Your task to perform on an android device: Open the calendar app, open the side menu, and click the "Day" option Image 0: 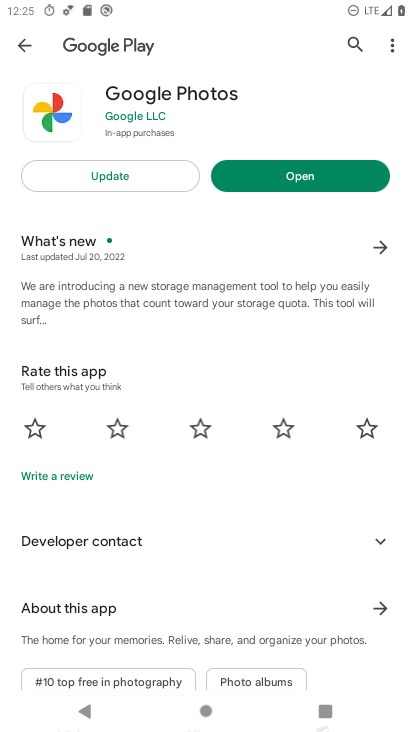
Step 0: press home button
Your task to perform on an android device: Open the calendar app, open the side menu, and click the "Day" option Image 1: 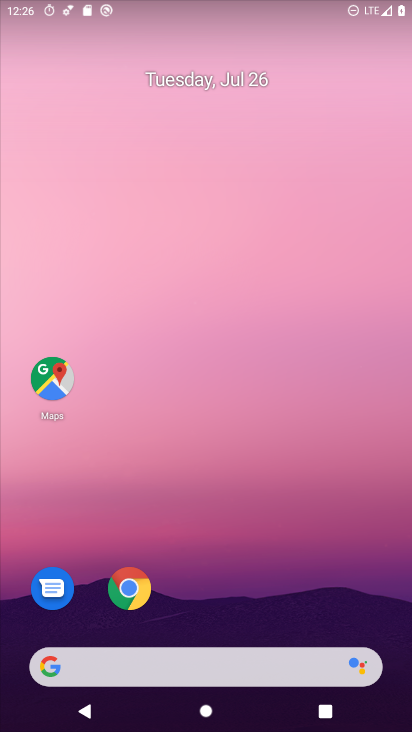
Step 1: drag from (241, 474) to (198, 80)
Your task to perform on an android device: Open the calendar app, open the side menu, and click the "Day" option Image 2: 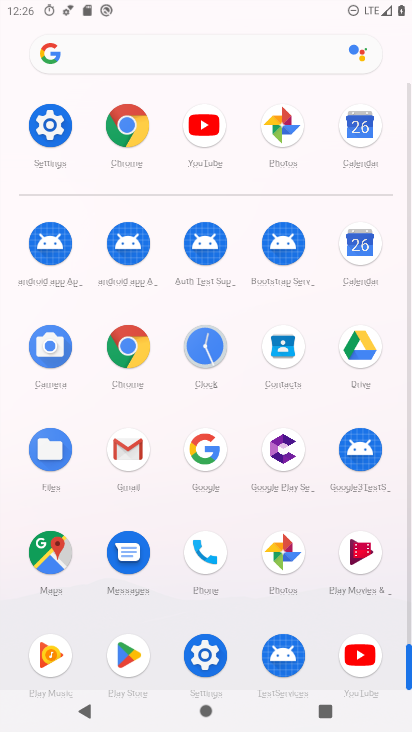
Step 2: click (368, 252)
Your task to perform on an android device: Open the calendar app, open the side menu, and click the "Day" option Image 3: 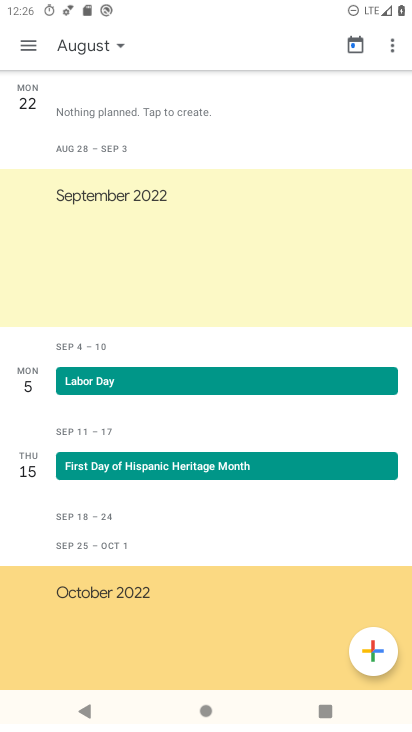
Step 3: click (29, 45)
Your task to perform on an android device: Open the calendar app, open the side menu, and click the "Day" option Image 4: 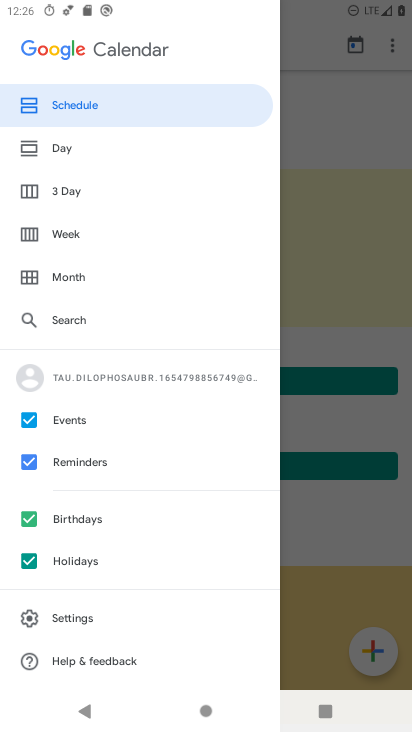
Step 4: click (60, 156)
Your task to perform on an android device: Open the calendar app, open the side menu, and click the "Day" option Image 5: 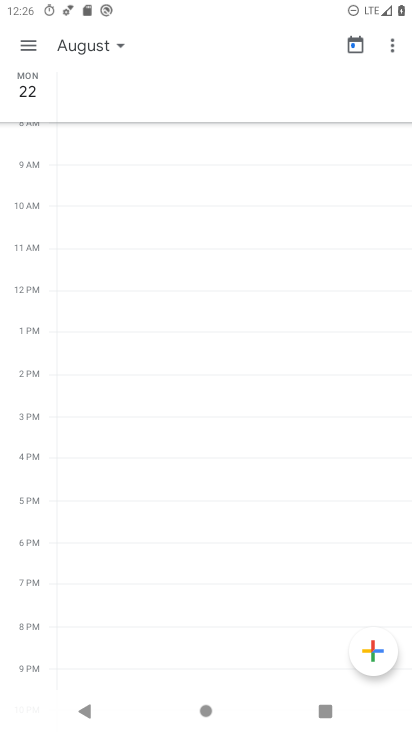
Step 5: task complete